Your task to perform on an android device: Show the shopping cart on target.com. Add usb-c to the cart on target.com, then select checkout. Image 0: 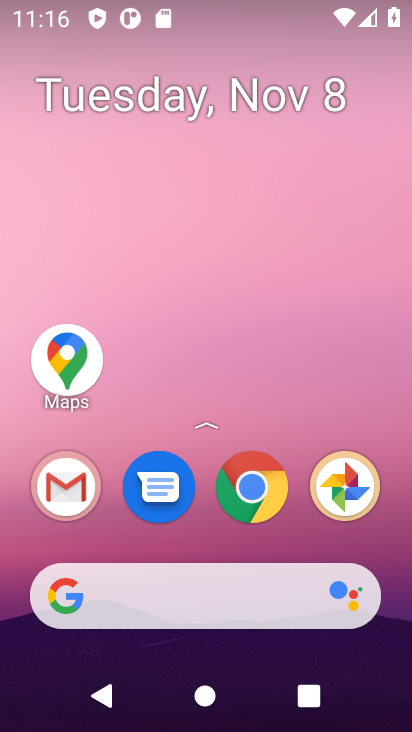
Step 0: click (173, 588)
Your task to perform on an android device: Show the shopping cart on target.com. Add usb-c to the cart on target.com, then select checkout. Image 1: 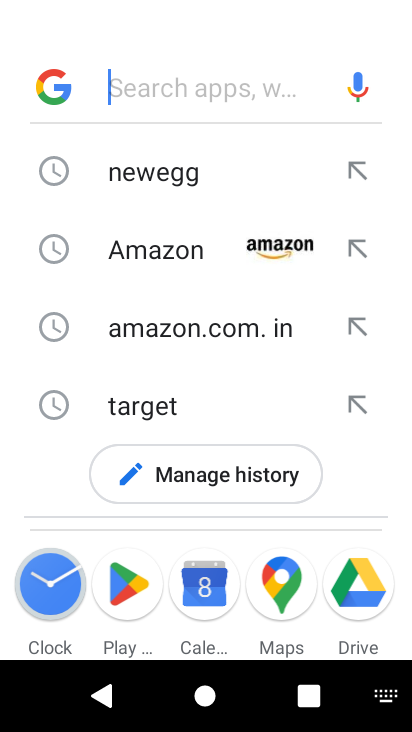
Step 1: click (149, 407)
Your task to perform on an android device: Show the shopping cart on target.com. Add usb-c to the cart on target.com, then select checkout. Image 2: 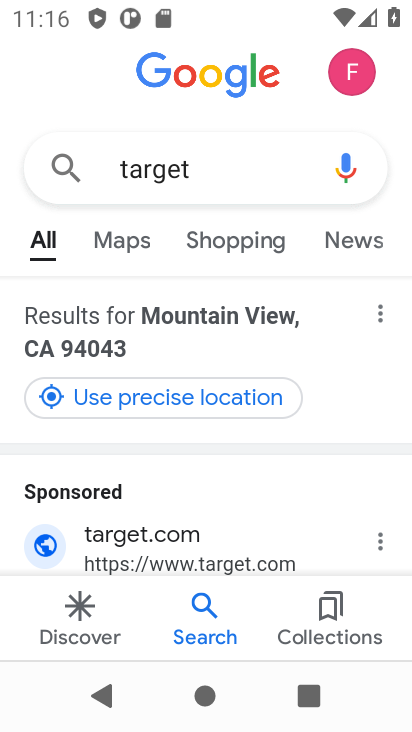
Step 2: click (140, 537)
Your task to perform on an android device: Show the shopping cart on target.com. Add usb-c to the cart on target.com, then select checkout. Image 3: 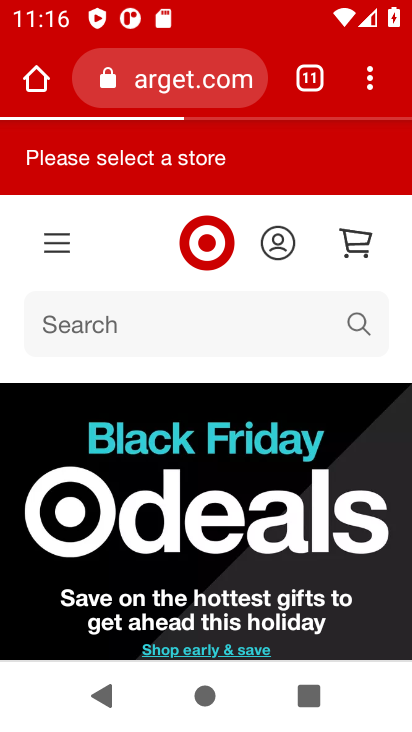
Step 3: click (241, 308)
Your task to perform on an android device: Show the shopping cart on target.com. Add usb-c to the cart on target.com, then select checkout. Image 4: 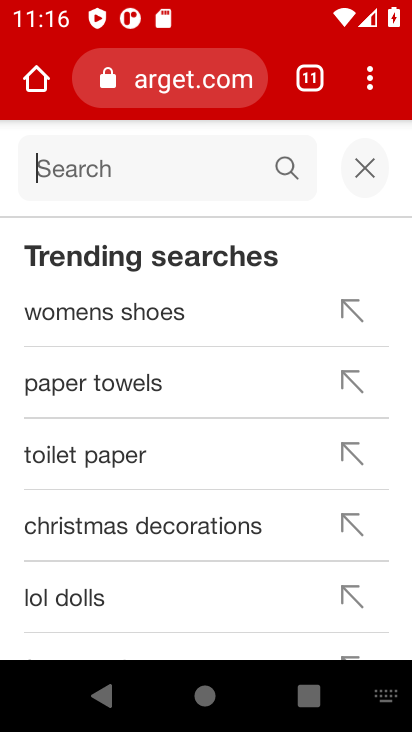
Step 4: click (157, 163)
Your task to perform on an android device: Show the shopping cart on target.com. Add usb-c to the cart on target.com, then select checkout. Image 5: 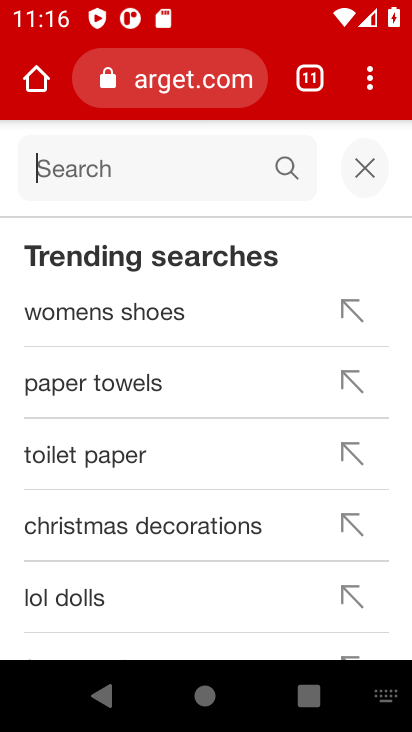
Step 5: type "usb-c "
Your task to perform on an android device: Show the shopping cart on target.com. Add usb-c to the cart on target.com, then select checkout. Image 6: 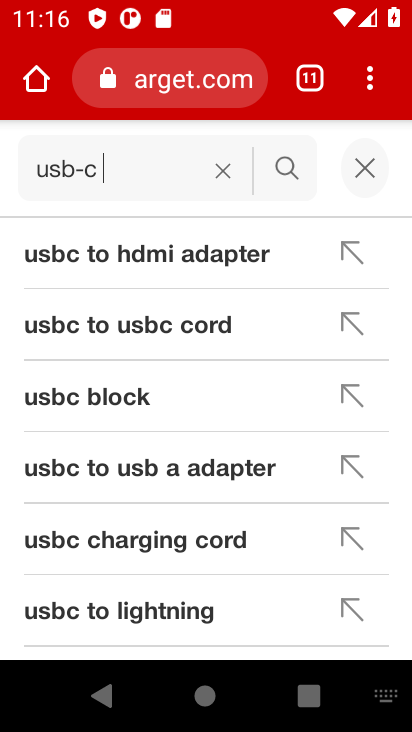
Step 6: click (291, 173)
Your task to perform on an android device: Show the shopping cart on target.com. Add usb-c to the cart on target.com, then select checkout. Image 7: 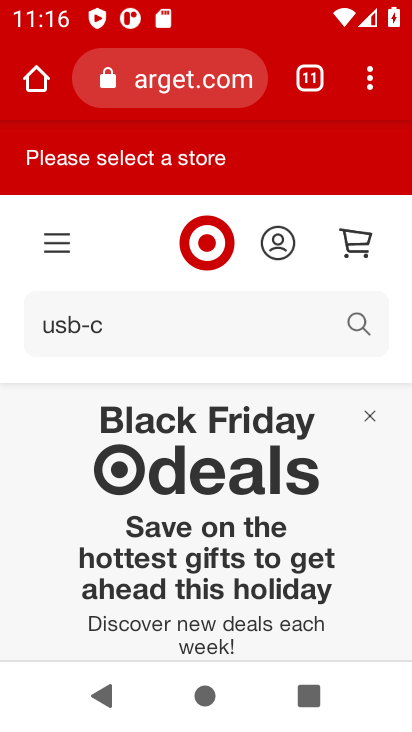
Step 7: drag from (239, 526) to (174, 313)
Your task to perform on an android device: Show the shopping cart on target.com. Add usb-c to the cart on target.com, then select checkout. Image 8: 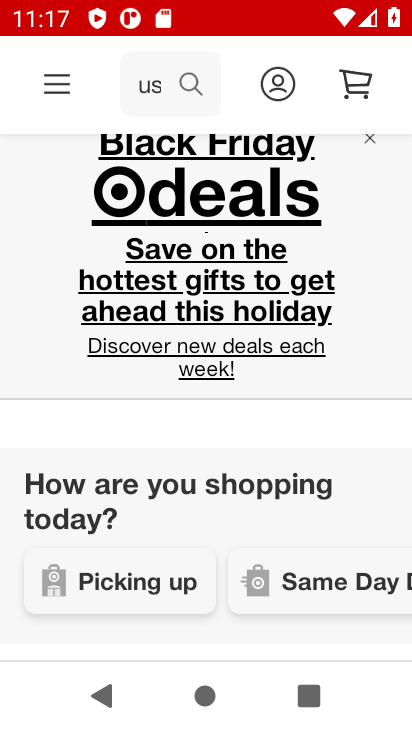
Step 8: drag from (160, 480) to (160, 200)
Your task to perform on an android device: Show the shopping cart on target.com. Add usb-c to the cart on target.com, then select checkout. Image 9: 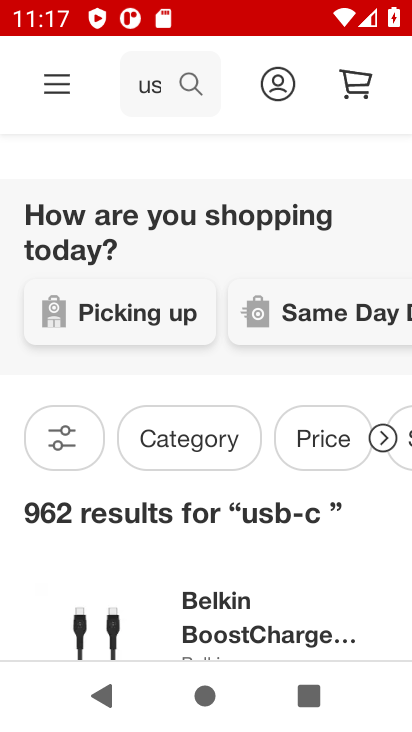
Step 9: drag from (193, 618) to (181, 487)
Your task to perform on an android device: Show the shopping cart on target.com. Add usb-c to the cart on target.com, then select checkout. Image 10: 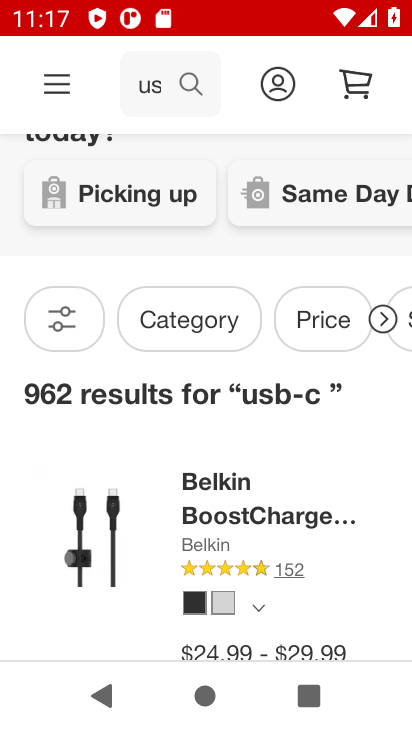
Step 10: drag from (231, 516) to (217, 258)
Your task to perform on an android device: Show the shopping cart on target.com. Add usb-c to the cart on target.com, then select checkout. Image 11: 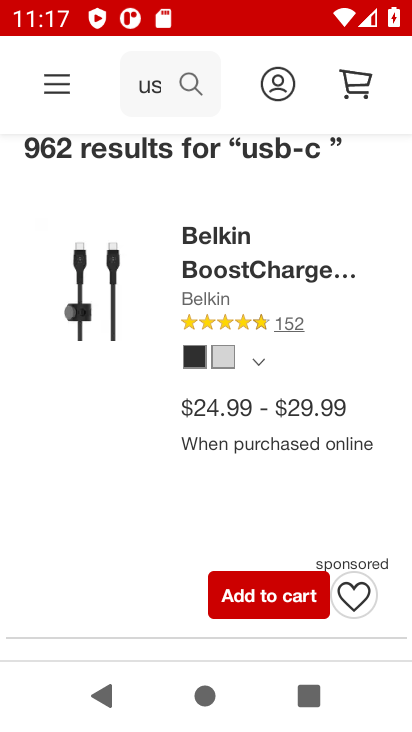
Step 11: click (268, 598)
Your task to perform on an android device: Show the shopping cart on target.com. Add usb-c to the cart on target.com, then select checkout. Image 12: 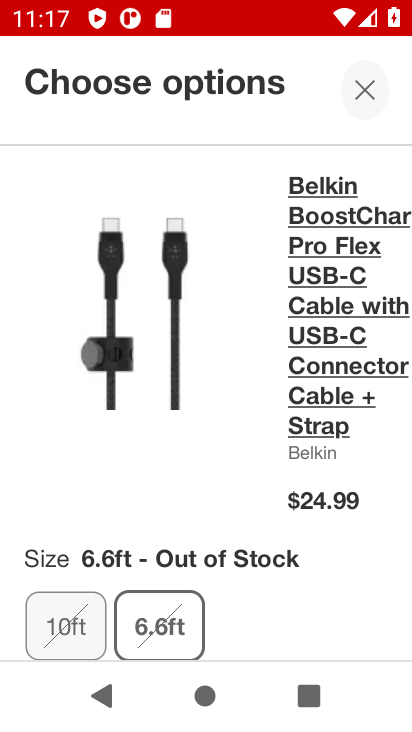
Step 12: drag from (234, 542) to (219, 352)
Your task to perform on an android device: Show the shopping cart on target.com. Add usb-c to the cart on target.com, then select checkout. Image 13: 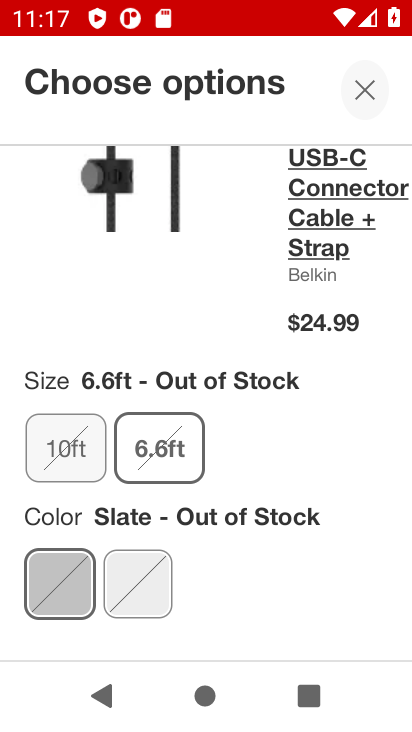
Step 13: drag from (211, 614) to (189, 444)
Your task to perform on an android device: Show the shopping cart on target.com. Add usb-c to the cart on target.com, then select checkout. Image 14: 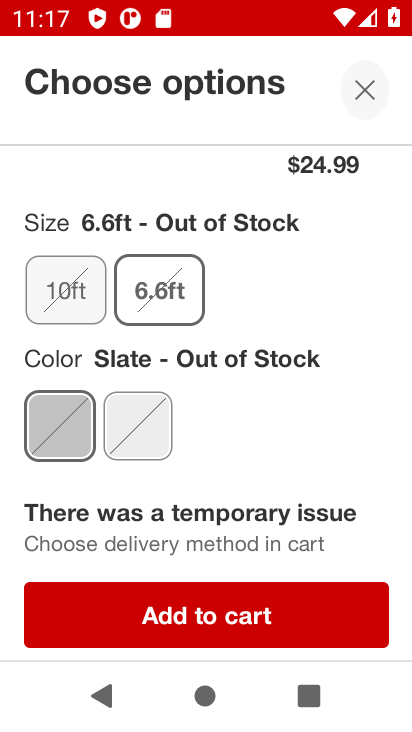
Step 14: click (200, 610)
Your task to perform on an android device: Show the shopping cart on target.com. Add usb-c to the cart on target.com, then select checkout. Image 15: 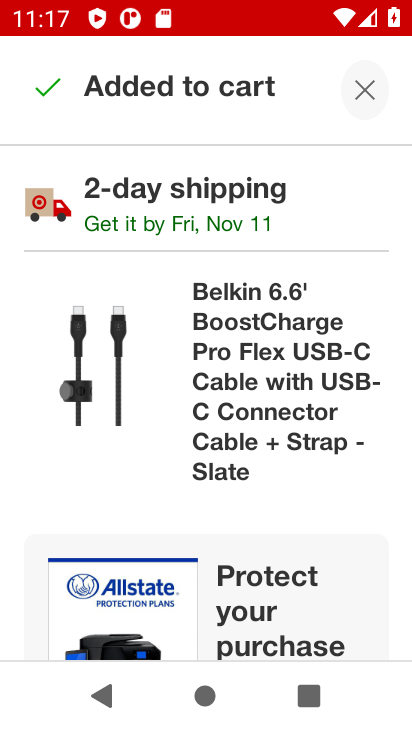
Step 15: drag from (212, 461) to (209, 297)
Your task to perform on an android device: Show the shopping cart on target.com. Add usb-c to the cart on target.com, then select checkout. Image 16: 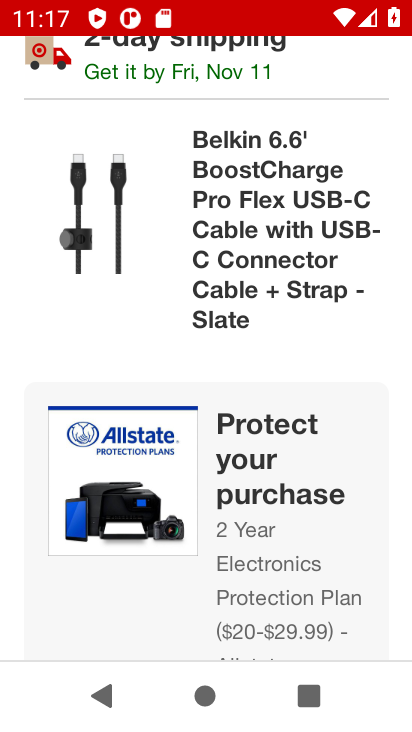
Step 16: drag from (354, 123) to (348, 370)
Your task to perform on an android device: Show the shopping cart on target.com. Add usb-c to the cart on target.com, then select checkout. Image 17: 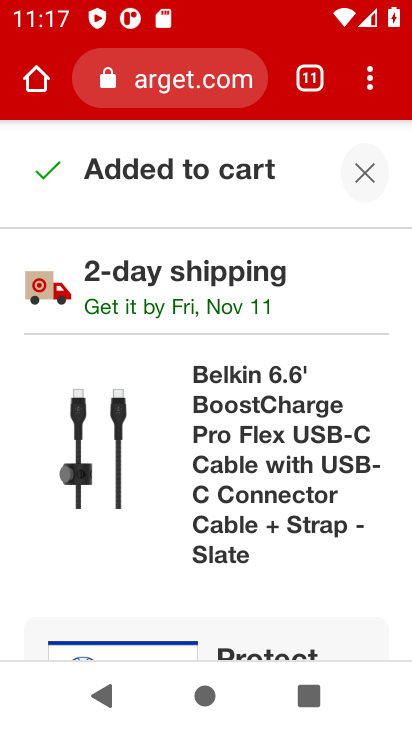
Step 17: click (357, 175)
Your task to perform on an android device: Show the shopping cart on target.com. Add usb-c to the cart on target.com, then select checkout. Image 18: 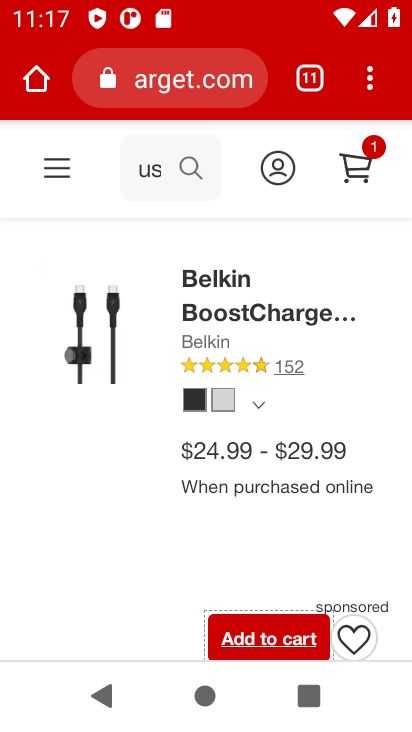
Step 18: click (351, 170)
Your task to perform on an android device: Show the shopping cart on target.com. Add usb-c to the cart on target.com, then select checkout. Image 19: 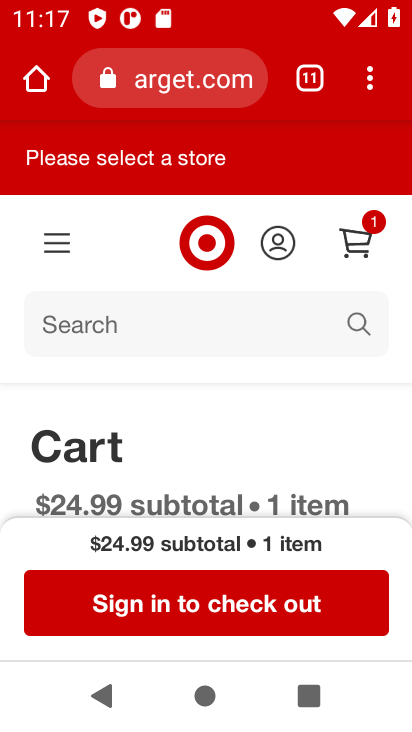
Step 19: click (366, 232)
Your task to perform on an android device: Show the shopping cart on target.com. Add usb-c to the cart on target.com, then select checkout. Image 20: 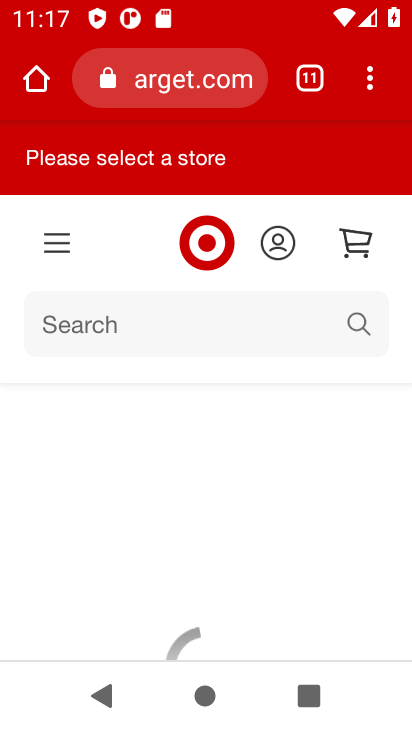
Step 20: click (199, 597)
Your task to perform on an android device: Show the shopping cart on target.com. Add usb-c to the cart on target.com, then select checkout. Image 21: 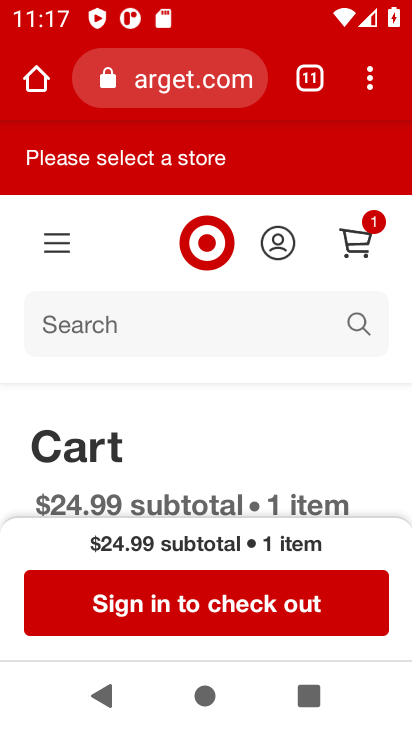
Step 21: click (207, 602)
Your task to perform on an android device: Show the shopping cart on target.com. Add usb-c to the cart on target.com, then select checkout. Image 22: 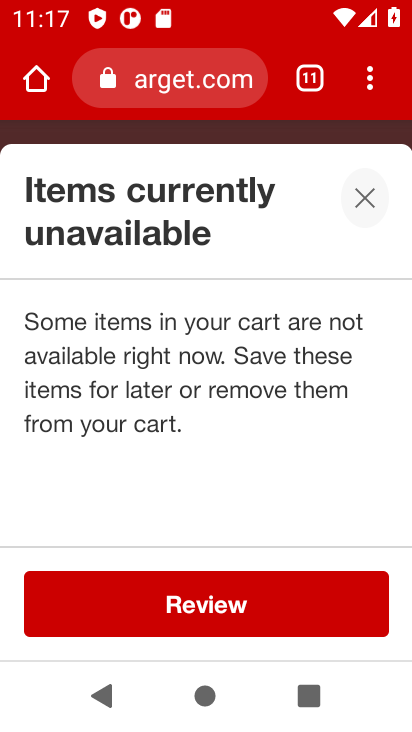
Step 22: task complete